Your task to perform on an android device: Add "macbook pro 13 inch" to the cart on target Image 0: 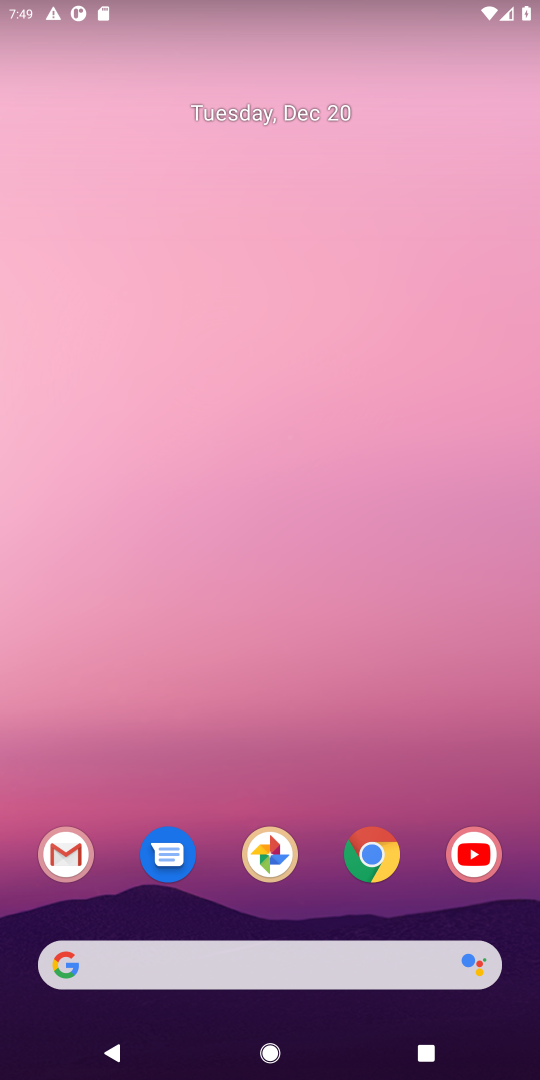
Step 0: click (365, 857)
Your task to perform on an android device: Add "macbook pro 13 inch" to the cart on target Image 1: 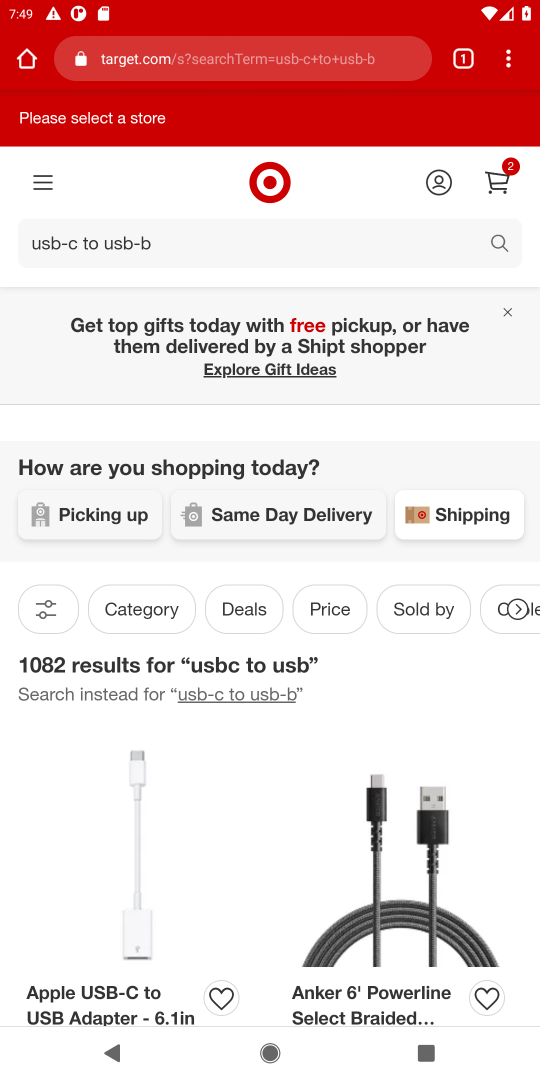
Step 1: click (160, 243)
Your task to perform on an android device: Add "macbook pro 13 inch" to the cart on target Image 2: 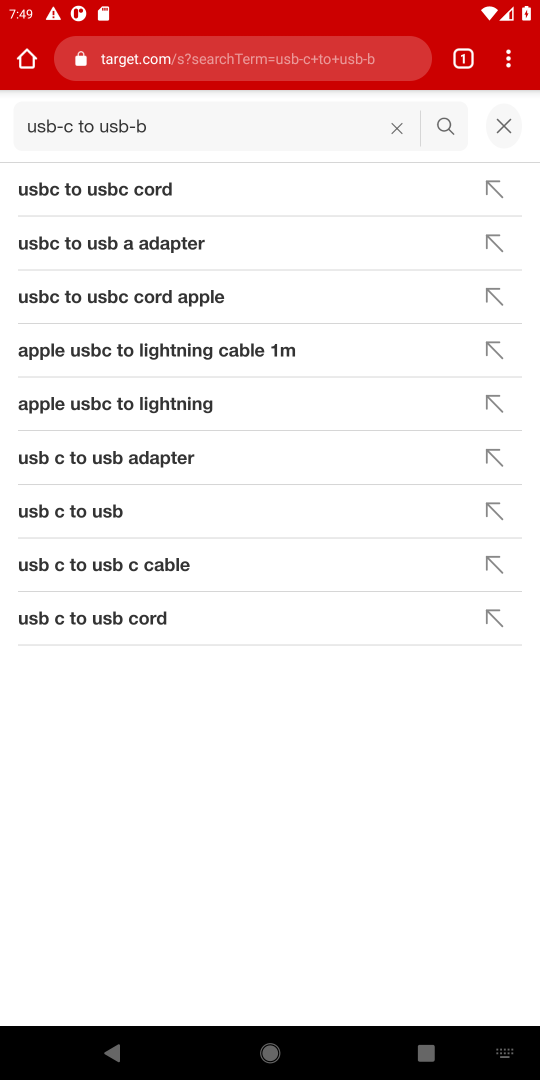
Step 2: click (393, 124)
Your task to perform on an android device: Add "macbook pro 13 inch" to the cart on target Image 3: 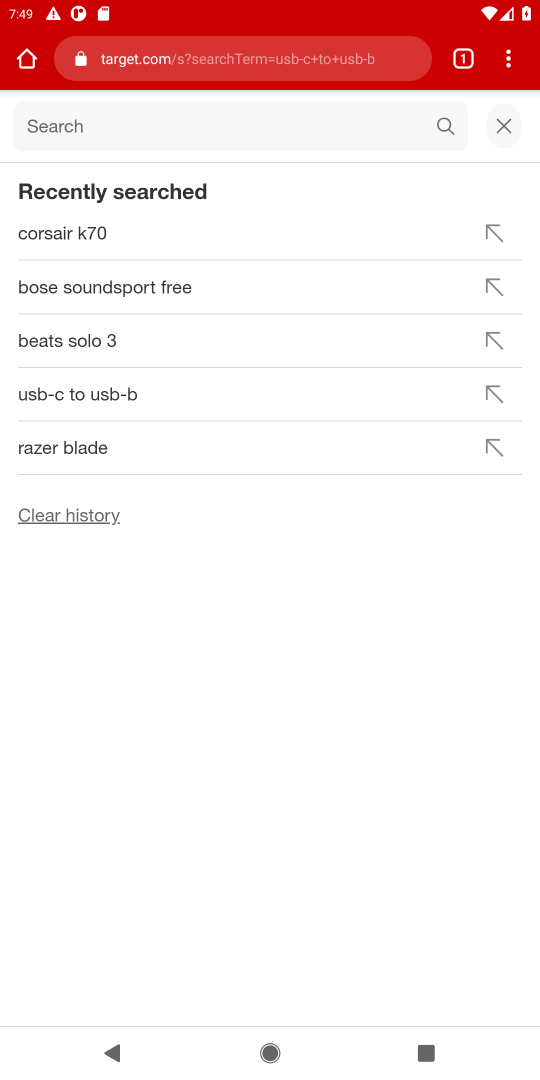
Step 3: click (112, 124)
Your task to perform on an android device: Add "macbook pro 13 inch" to the cart on target Image 4: 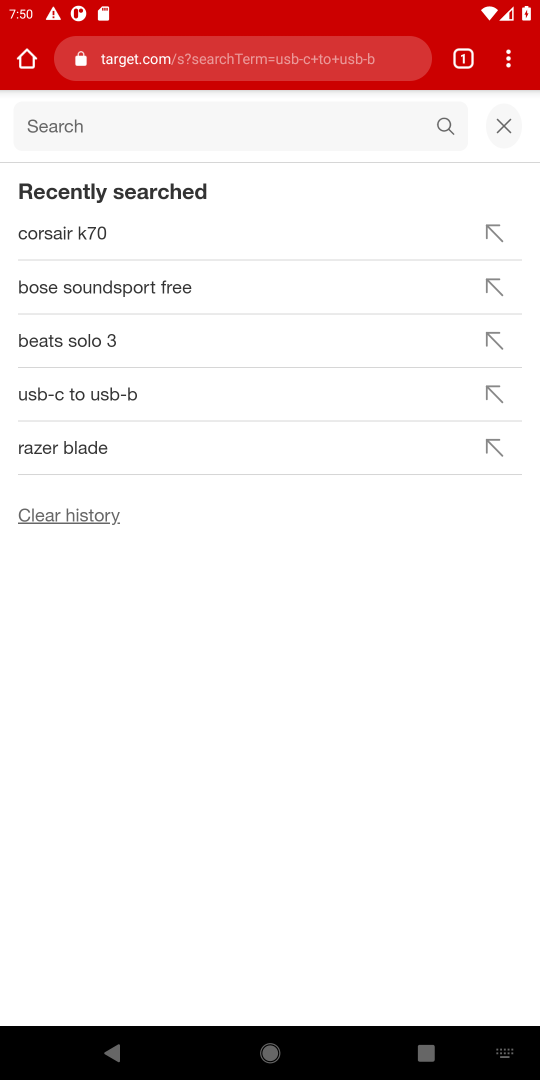
Step 4: type "macbook pro 13 inch"
Your task to perform on an android device: Add "macbook pro 13 inch" to the cart on target Image 5: 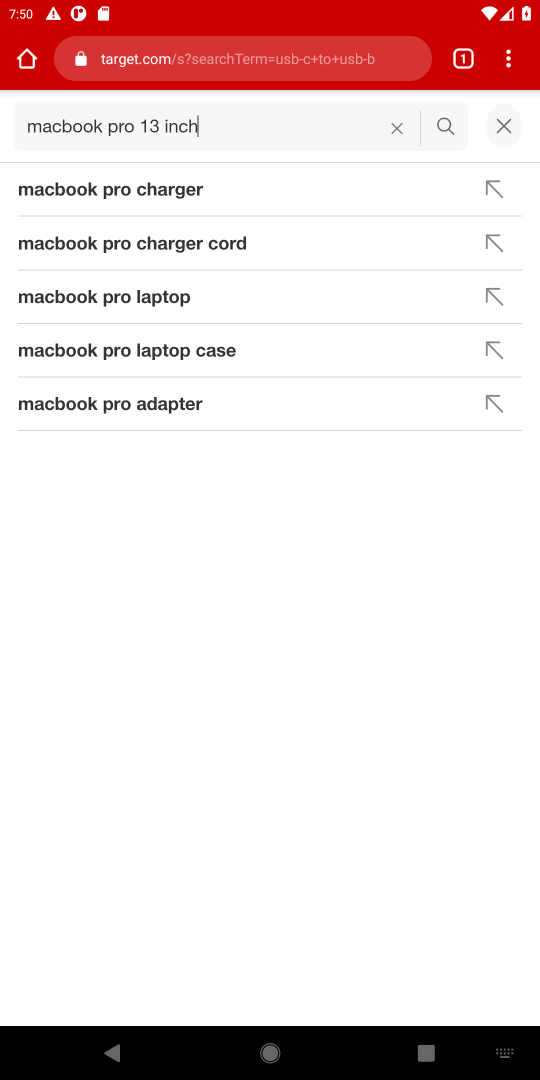
Step 5: click (453, 131)
Your task to perform on an android device: Add "macbook pro 13 inch" to the cart on target Image 6: 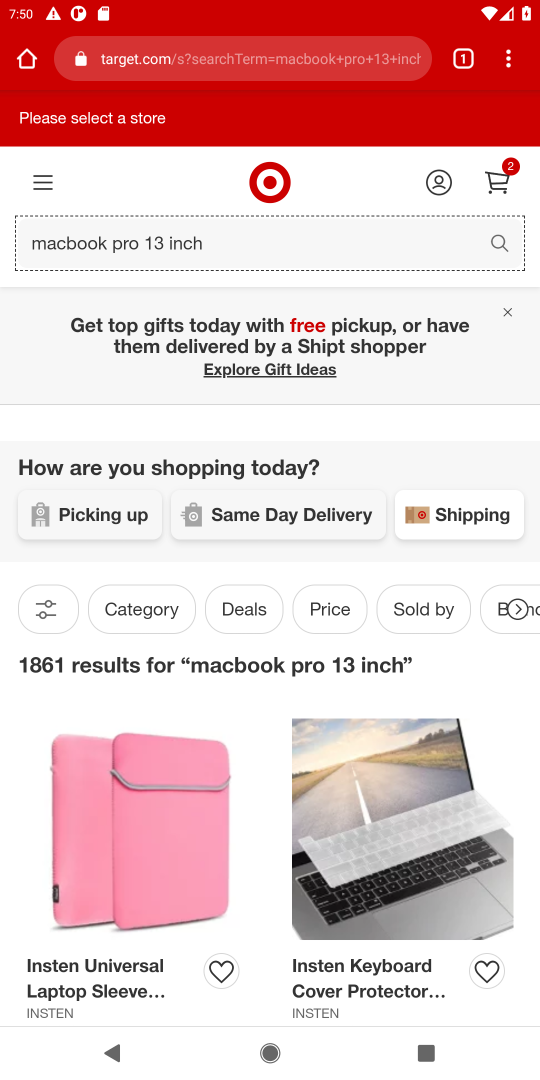
Step 6: drag from (175, 874) to (183, 541)
Your task to perform on an android device: Add "macbook pro 13 inch" to the cart on target Image 7: 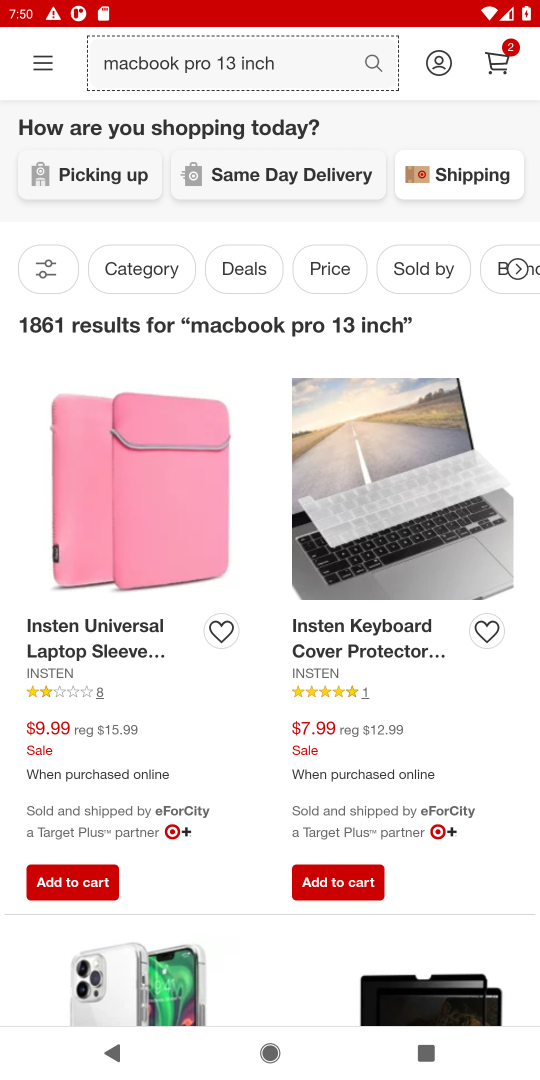
Step 7: click (77, 643)
Your task to perform on an android device: Add "macbook pro 13 inch" to the cart on target Image 8: 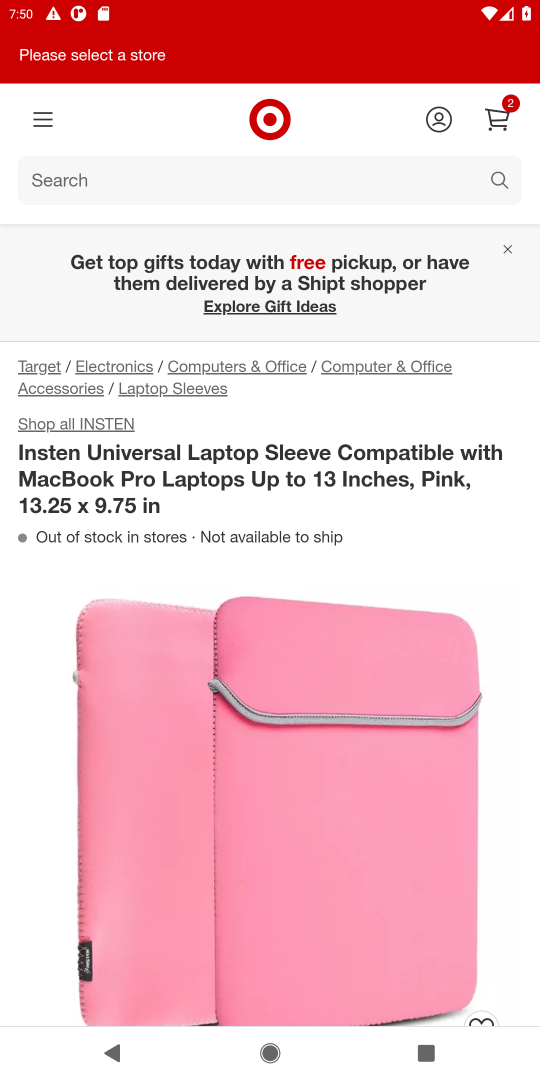
Step 8: drag from (239, 813) to (235, 513)
Your task to perform on an android device: Add "macbook pro 13 inch" to the cart on target Image 9: 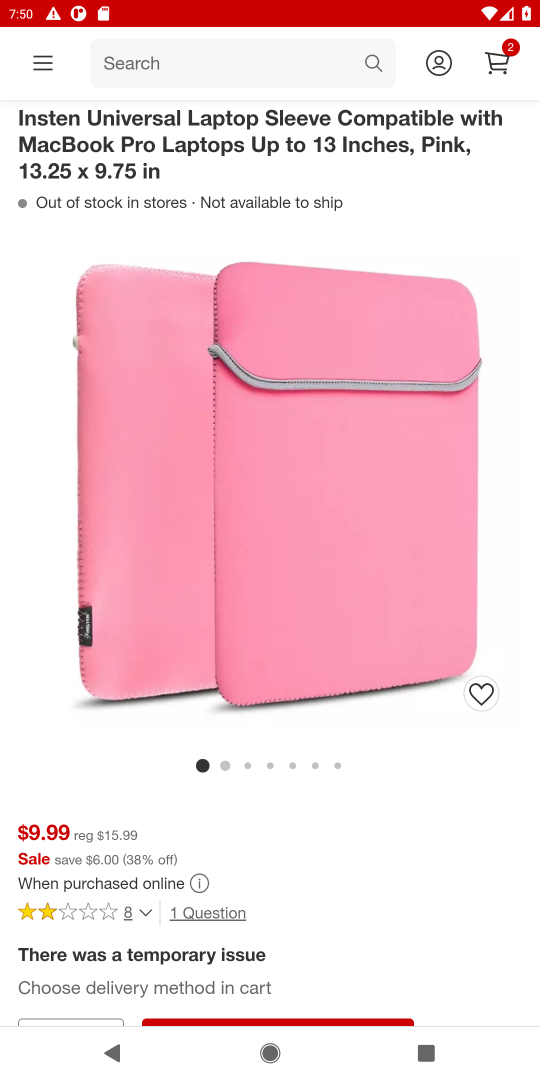
Step 9: drag from (212, 861) to (224, 431)
Your task to perform on an android device: Add "macbook pro 13 inch" to the cart on target Image 10: 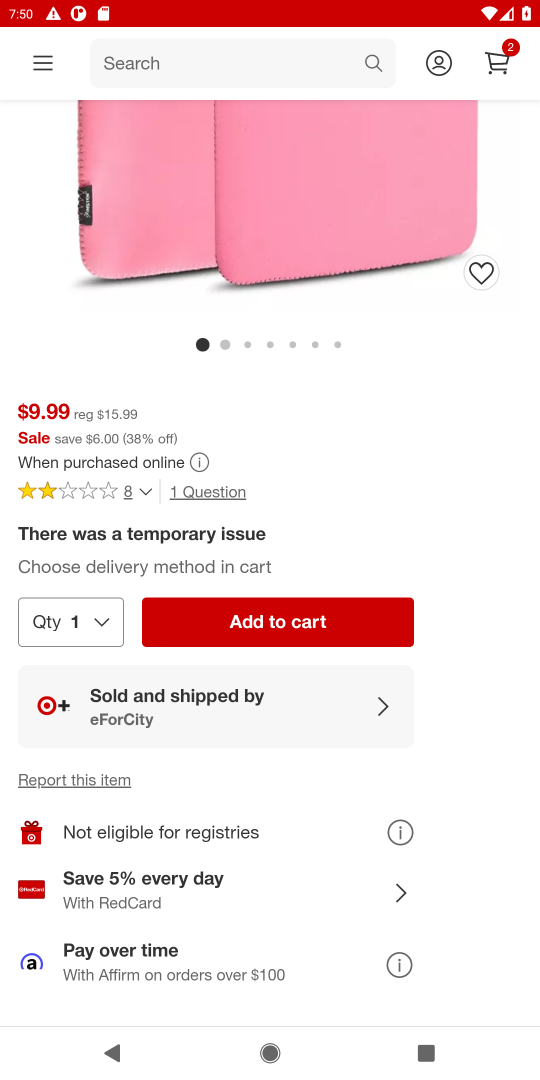
Step 10: click (254, 621)
Your task to perform on an android device: Add "macbook pro 13 inch" to the cart on target Image 11: 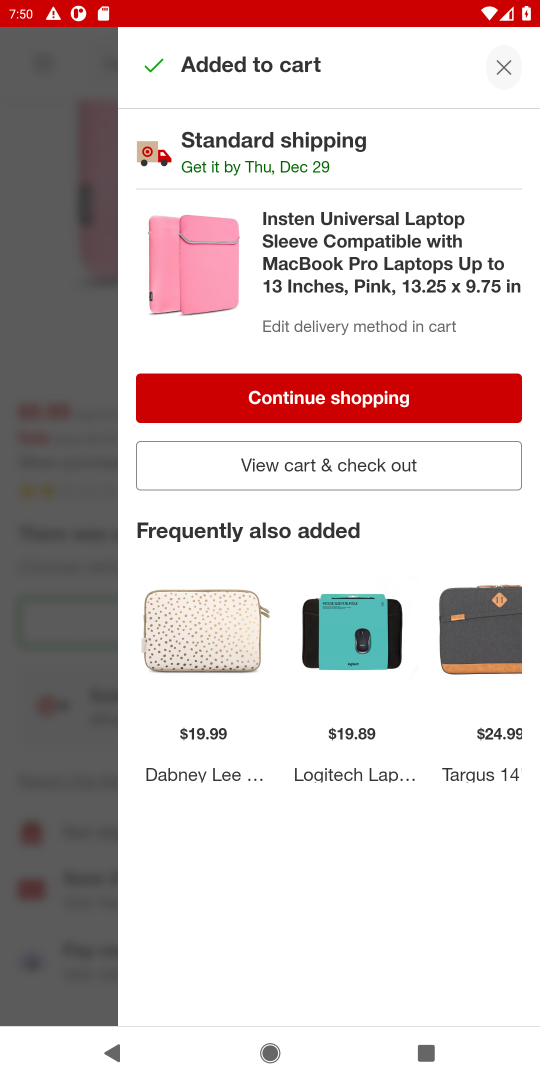
Step 11: task complete